Your task to perform on an android device: remove spam from my inbox in the gmail app Image 0: 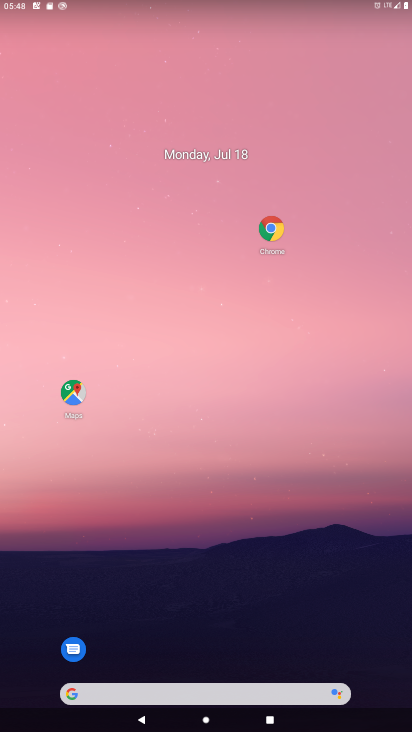
Step 0: drag from (185, 628) to (227, 119)
Your task to perform on an android device: remove spam from my inbox in the gmail app Image 1: 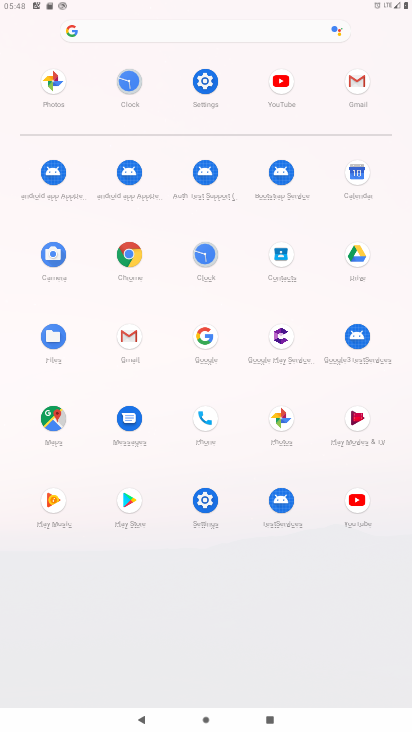
Step 1: click (347, 81)
Your task to perform on an android device: remove spam from my inbox in the gmail app Image 2: 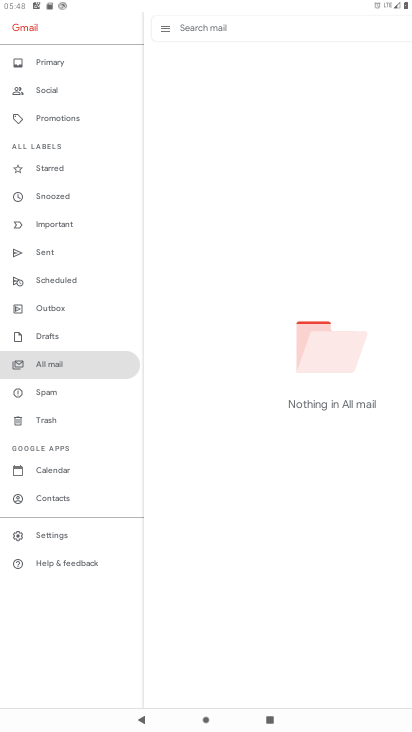
Step 2: click (37, 394)
Your task to perform on an android device: remove spam from my inbox in the gmail app Image 3: 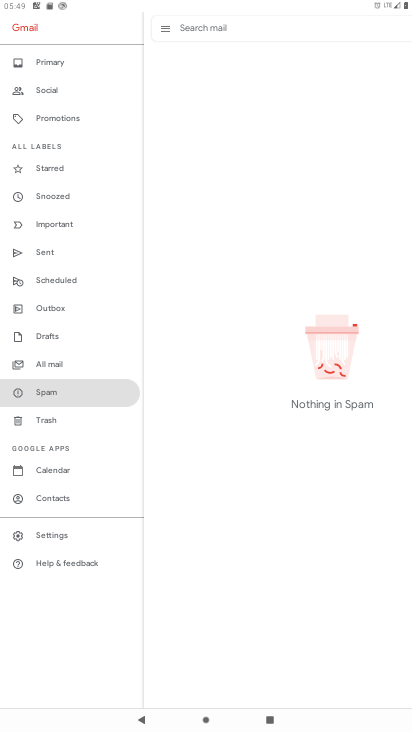
Step 3: task complete